Your task to perform on an android device: see sites visited before in the chrome app Image 0: 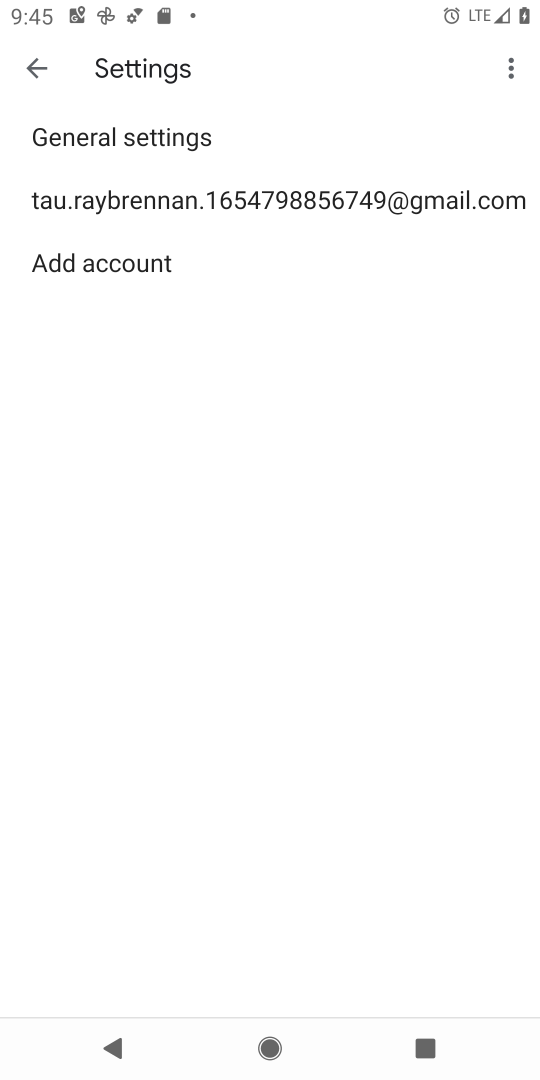
Step 0: press home button
Your task to perform on an android device: see sites visited before in the chrome app Image 1: 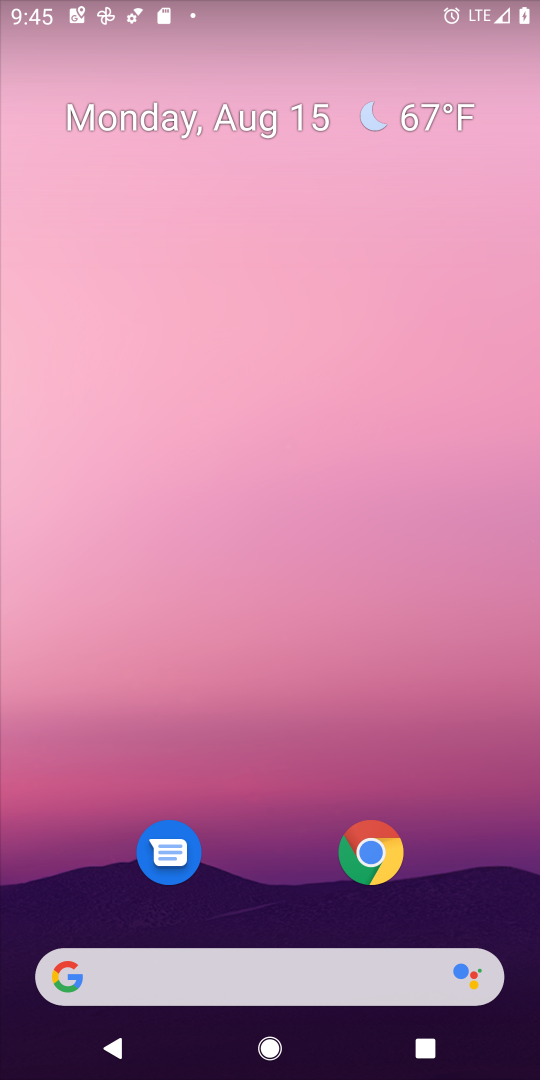
Step 1: click (373, 856)
Your task to perform on an android device: see sites visited before in the chrome app Image 2: 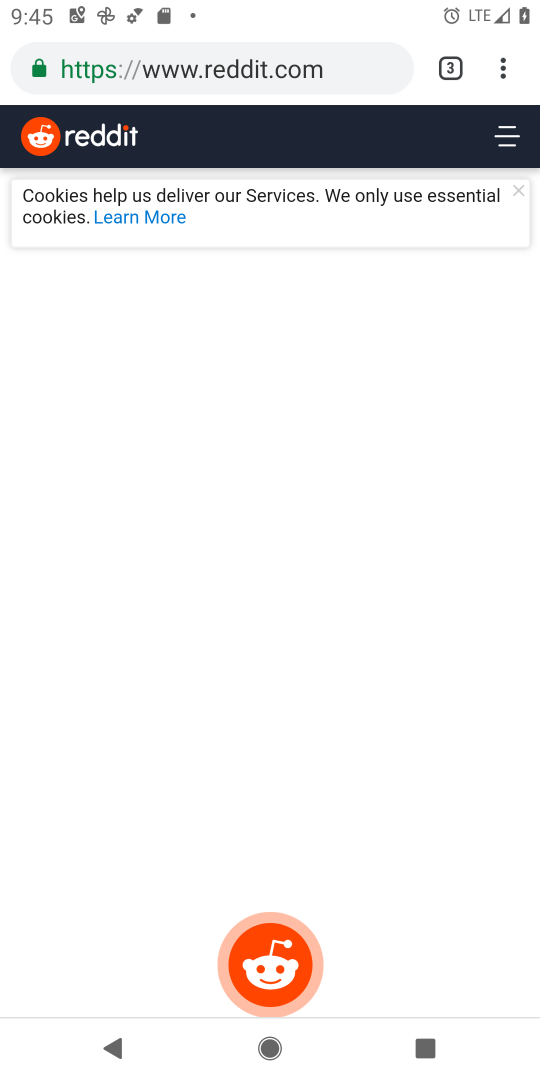
Step 2: task complete